Your task to perform on an android device: Open Android settings Image 0: 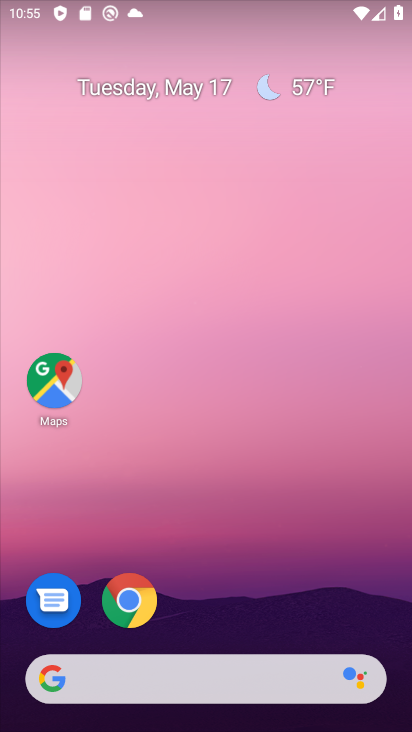
Step 0: drag from (353, 696) to (132, 109)
Your task to perform on an android device: Open Android settings Image 1: 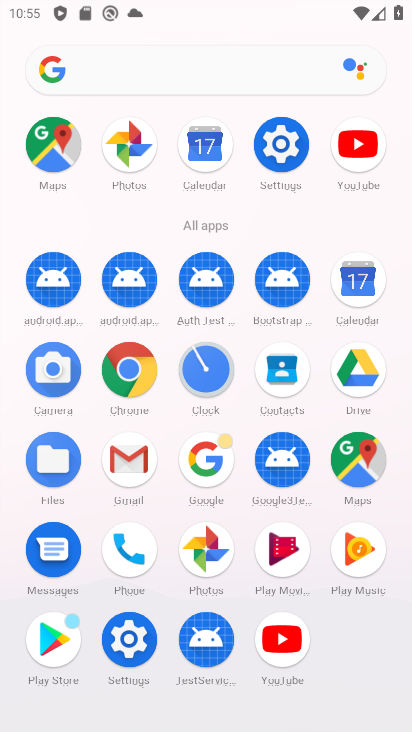
Step 1: click (130, 654)
Your task to perform on an android device: Open Android settings Image 2: 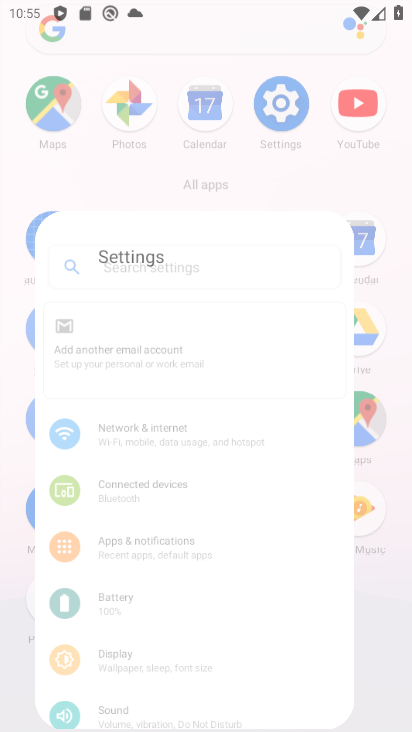
Step 2: click (135, 637)
Your task to perform on an android device: Open Android settings Image 3: 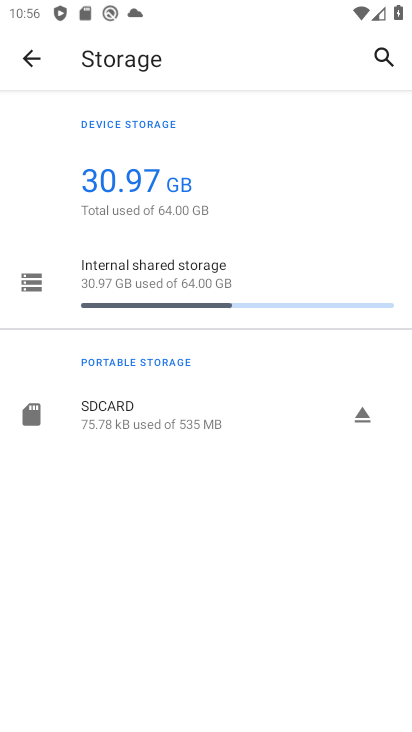
Step 3: click (31, 57)
Your task to perform on an android device: Open Android settings Image 4: 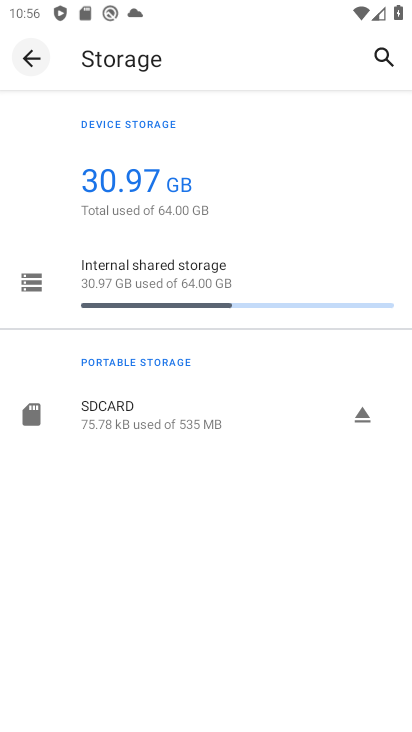
Step 4: click (31, 57)
Your task to perform on an android device: Open Android settings Image 5: 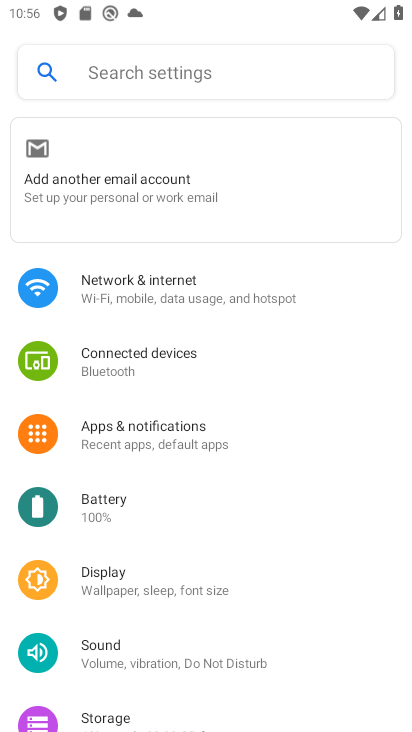
Step 5: drag from (163, 676) to (157, 153)
Your task to perform on an android device: Open Android settings Image 6: 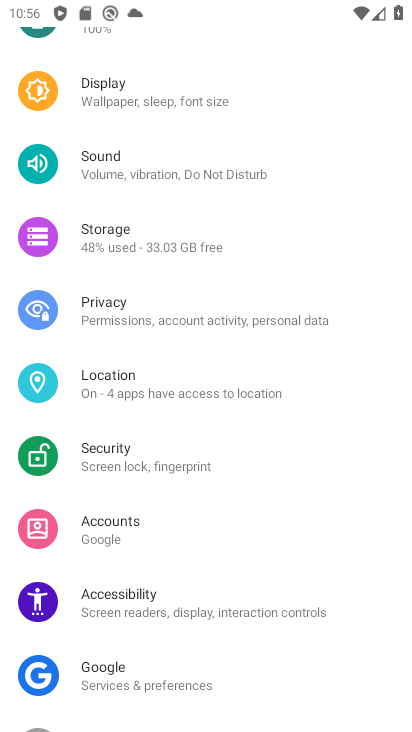
Step 6: drag from (186, 451) to (181, 316)
Your task to perform on an android device: Open Android settings Image 7: 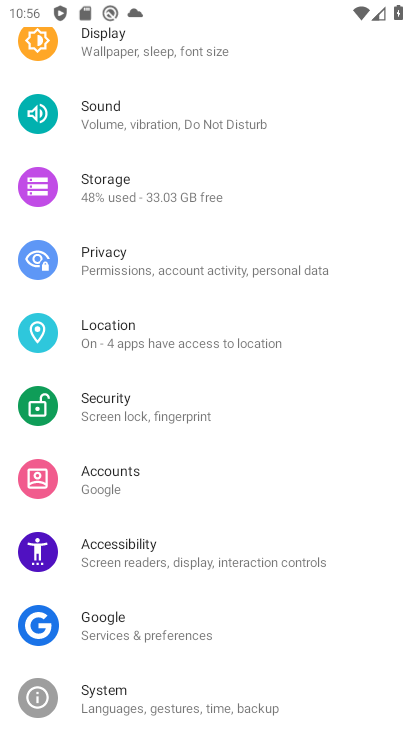
Step 7: drag from (194, 576) to (253, 156)
Your task to perform on an android device: Open Android settings Image 8: 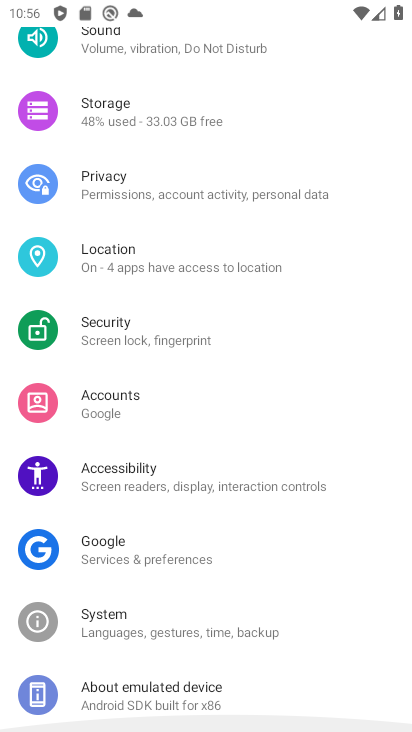
Step 8: drag from (234, 546) to (158, 230)
Your task to perform on an android device: Open Android settings Image 9: 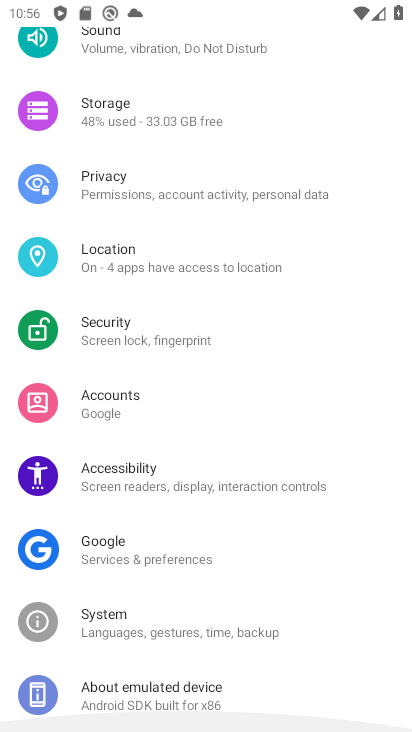
Step 9: drag from (121, 463) to (18, 69)
Your task to perform on an android device: Open Android settings Image 10: 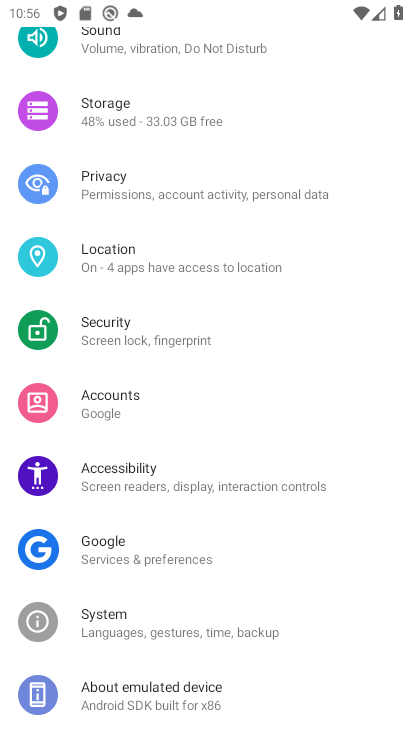
Step 10: click (143, 700)
Your task to perform on an android device: Open Android settings Image 11: 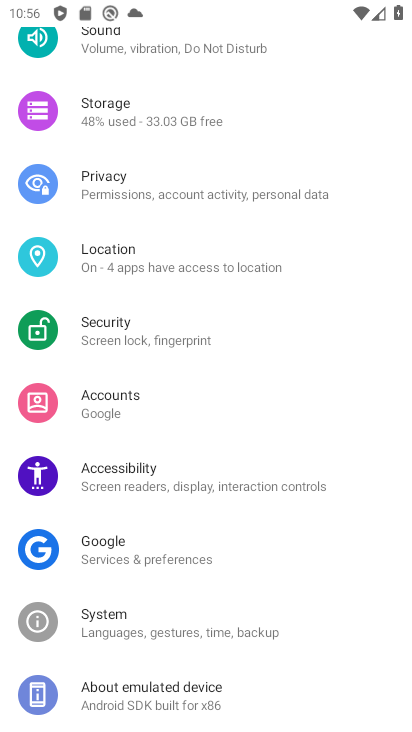
Step 11: click (143, 700)
Your task to perform on an android device: Open Android settings Image 12: 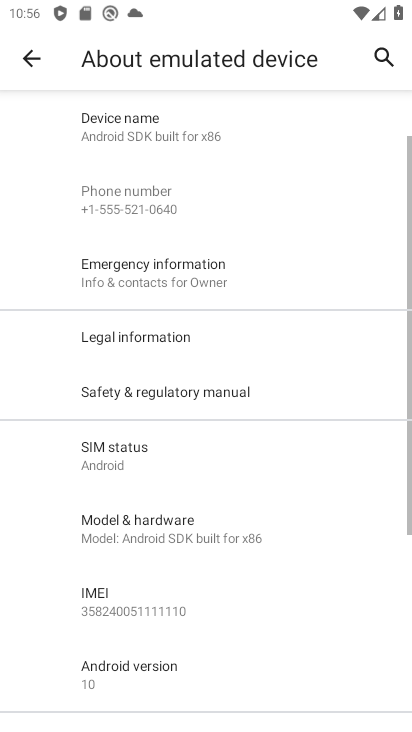
Step 12: task complete